Your task to perform on an android device: turn on the 12-hour format for clock Image 0: 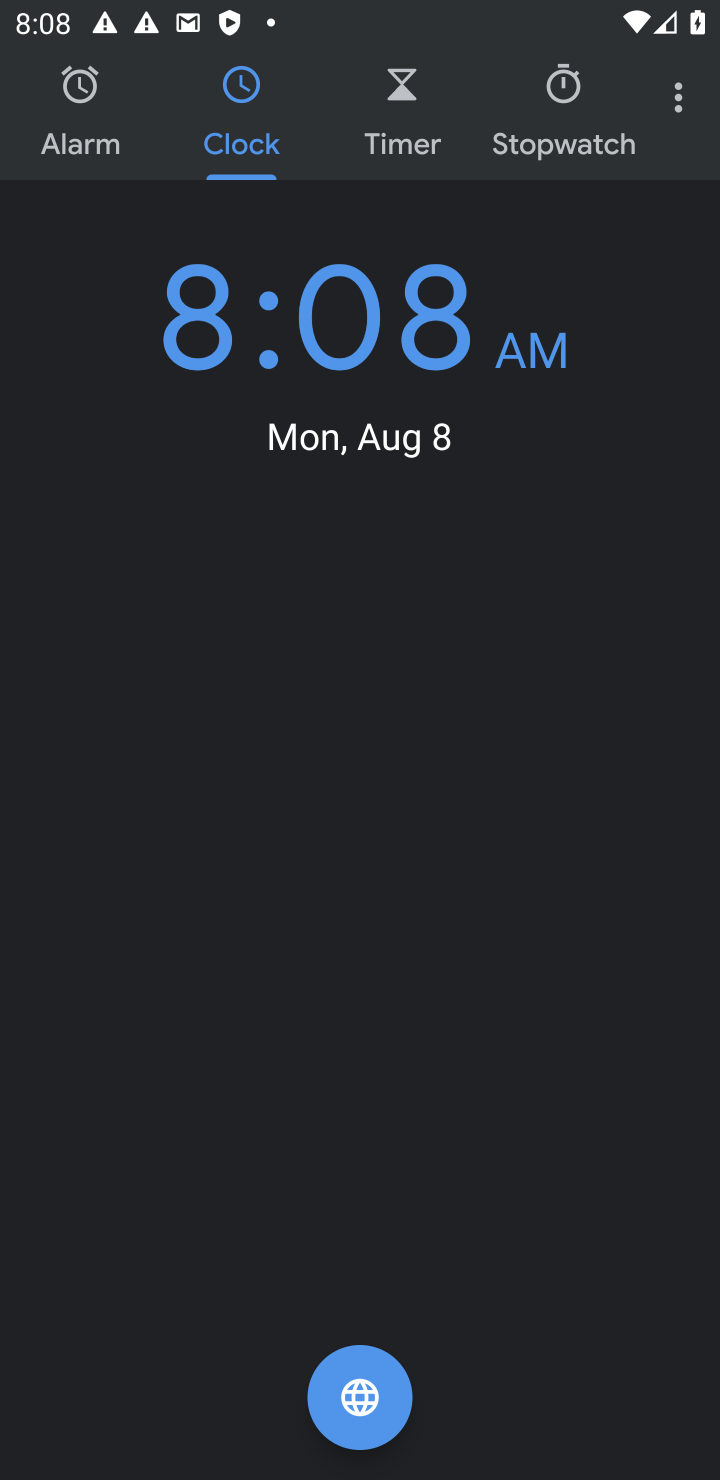
Step 0: task complete